Your task to perform on an android device: Open display settings Image 0: 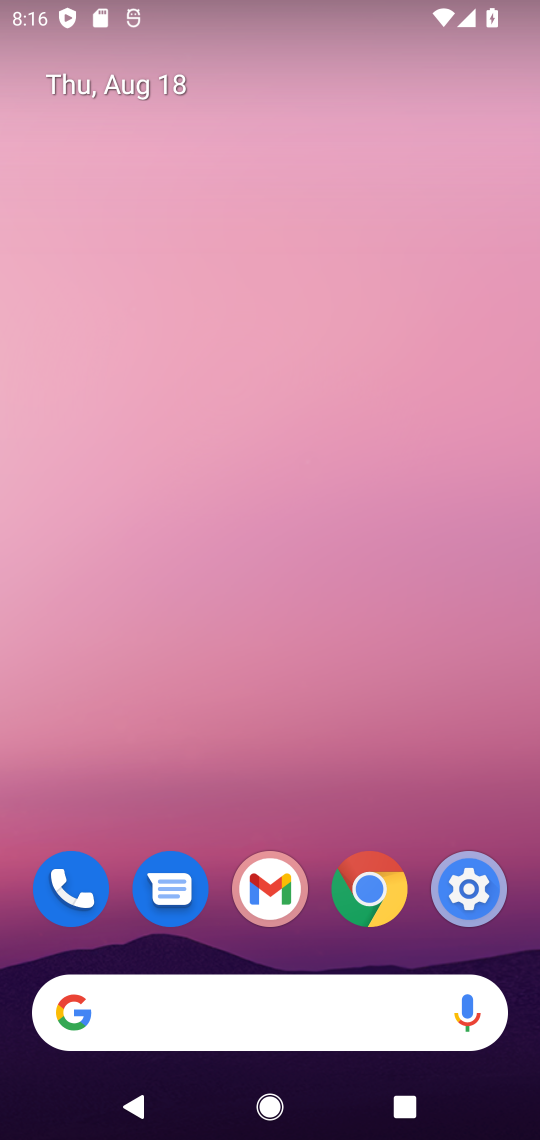
Step 0: press home button
Your task to perform on an android device: Open display settings Image 1: 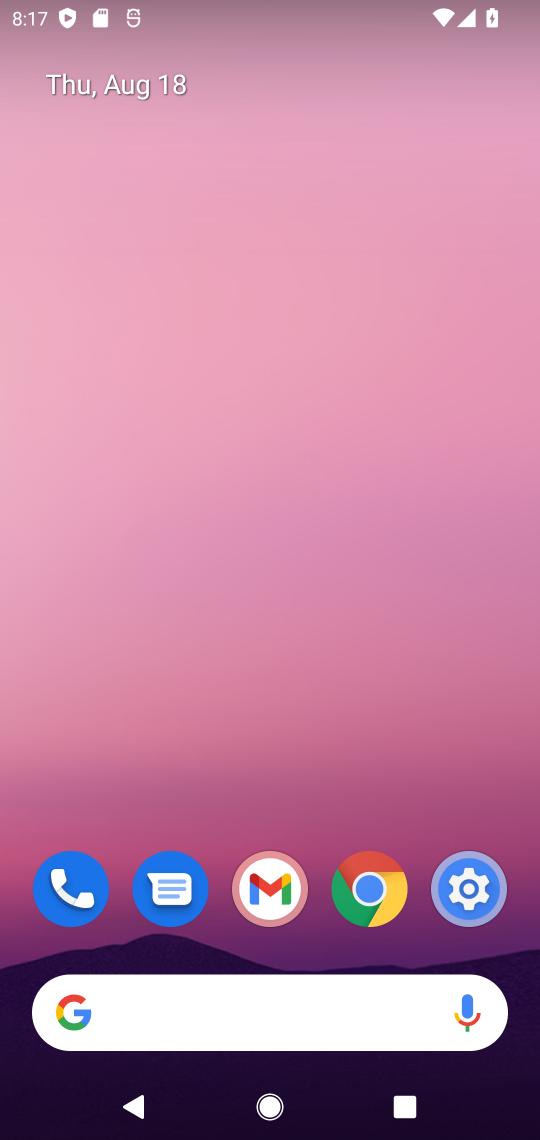
Step 1: click (474, 894)
Your task to perform on an android device: Open display settings Image 2: 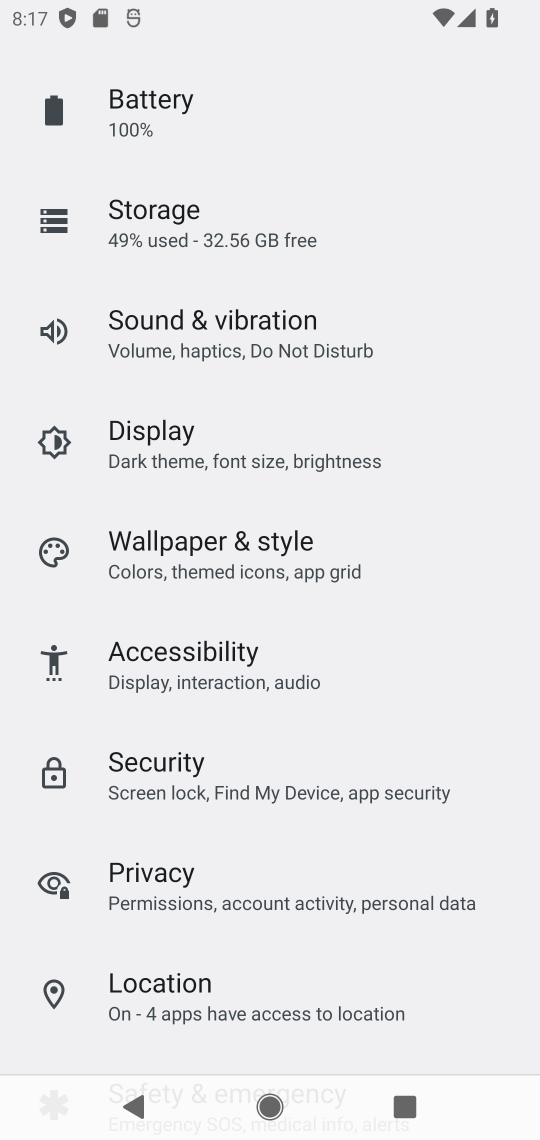
Step 2: click (158, 443)
Your task to perform on an android device: Open display settings Image 3: 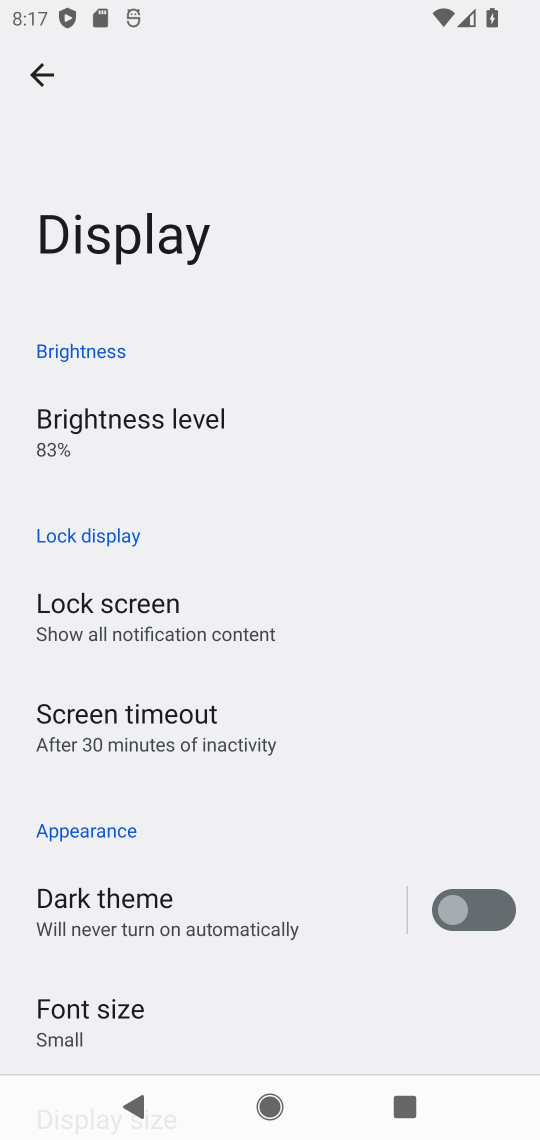
Step 3: task complete